Your task to perform on an android device: Do I have any events tomorrow? Image 0: 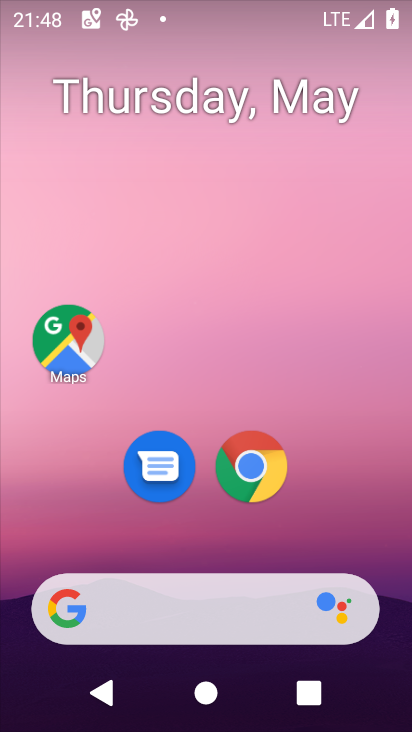
Step 0: drag from (354, 534) to (336, 151)
Your task to perform on an android device: Do I have any events tomorrow? Image 1: 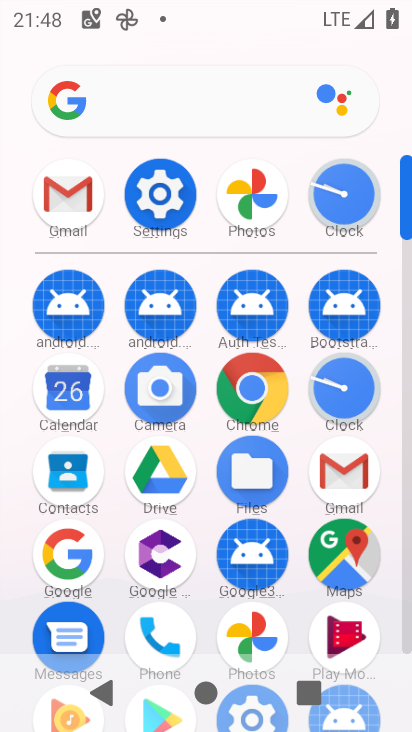
Step 1: click (136, 211)
Your task to perform on an android device: Do I have any events tomorrow? Image 2: 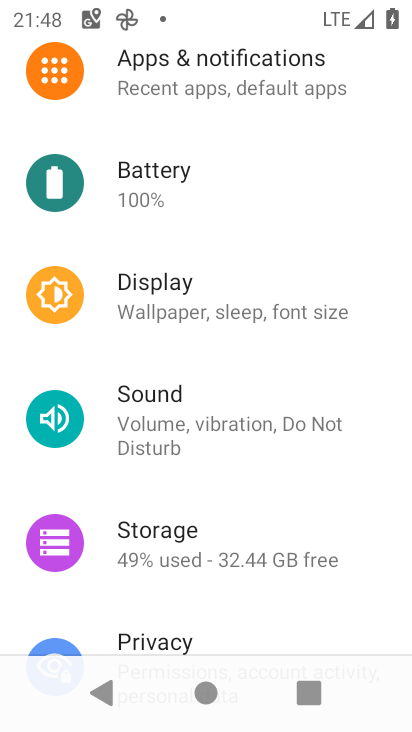
Step 2: press home button
Your task to perform on an android device: Do I have any events tomorrow? Image 3: 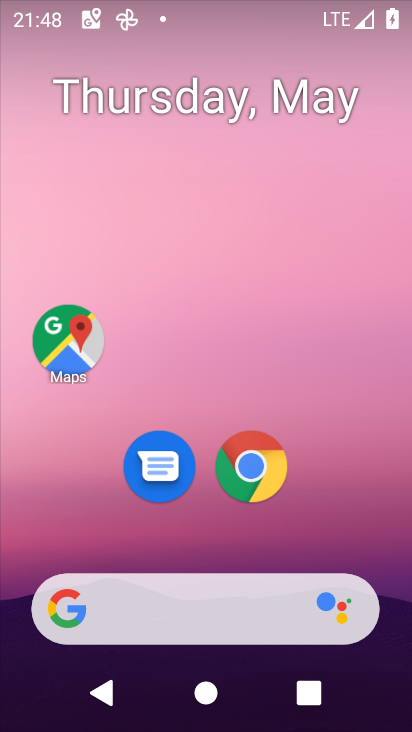
Step 3: drag from (347, 514) to (348, 131)
Your task to perform on an android device: Do I have any events tomorrow? Image 4: 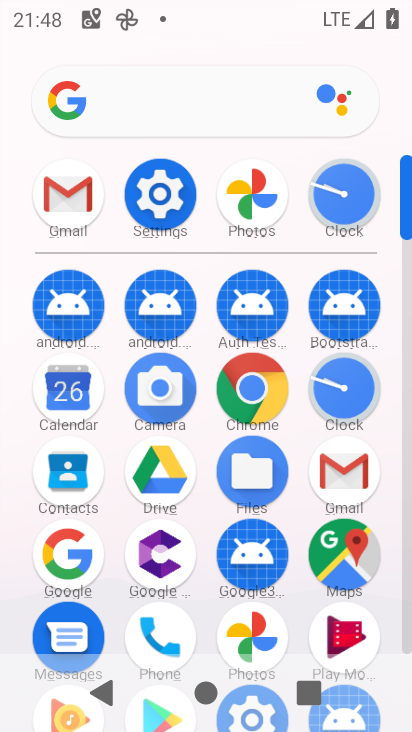
Step 4: click (73, 395)
Your task to perform on an android device: Do I have any events tomorrow? Image 5: 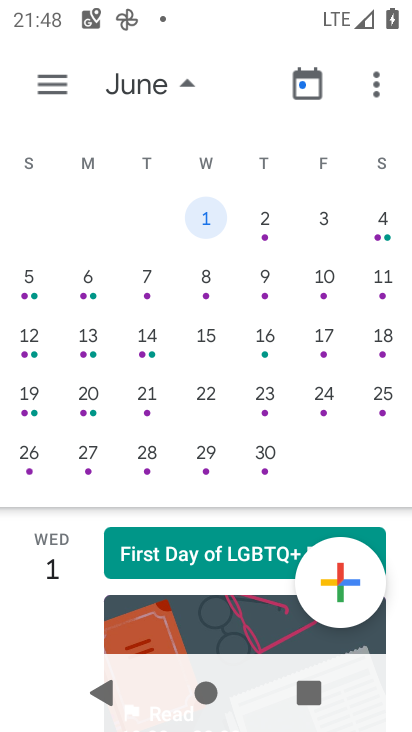
Step 5: task complete